Your task to perform on an android device: Search for macbook air on costco.com, select the first entry, add it to the cart, then select checkout. Image 0: 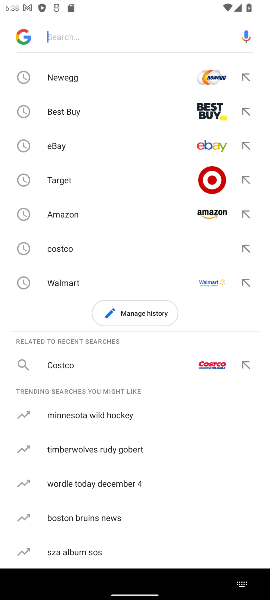
Step 0: click (61, 245)
Your task to perform on an android device: Search for macbook air on costco.com, select the first entry, add it to the cart, then select checkout. Image 1: 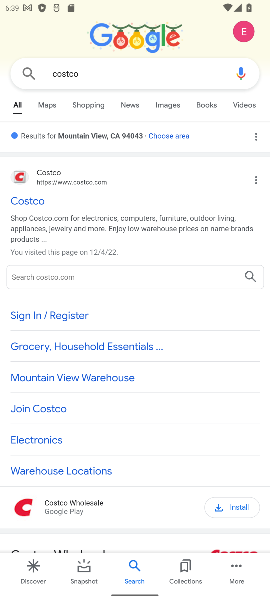
Step 1: click (27, 199)
Your task to perform on an android device: Search for macbook air on costco.com, select the first entry, add it to the cart, then select checkout. Image 2: 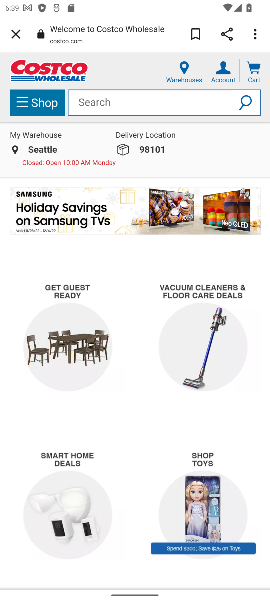
Step 2: click (154, 107)
Your task to perform on an android device: Search for macbook air on costco.com, select the first entry, add it to the cart, then select checkout. Image 3: 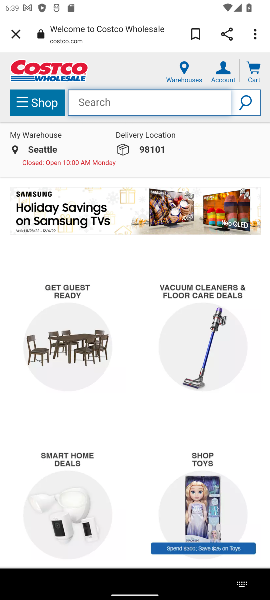
Step 3: type "macbook air"
Your task to perform on an android device: Search for macbook air on costco.com, select the first entry, add it to the cart, then select checkout. Image 4: 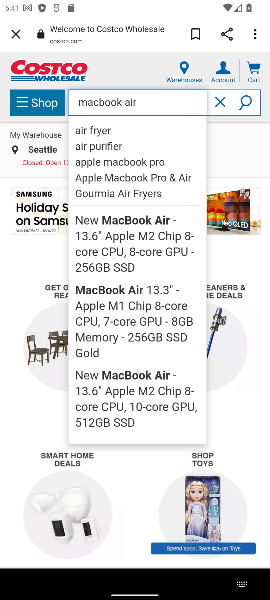
Step 4: click (241, 106)
Your task to perform on an android device: Search for macbook air on costco.com, select the first entry, add it to the cart, then select checkout. Image 5: 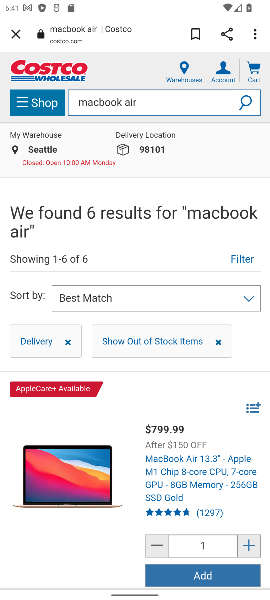
Step 5: click (197, 578)
Your task to perform on an android device: Search for macbook air on costco.com, select the first entry, add it to the cart, then select checkout. Image 6: 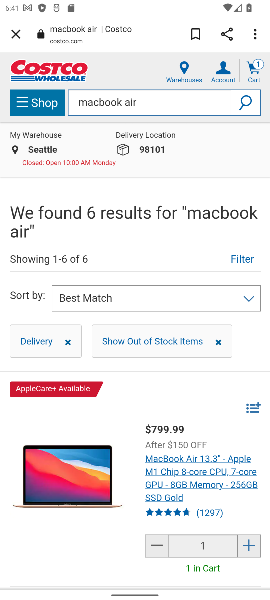
Step 6: click (256, 72)
Your task to perform on an android device: Search for macbook air on costco.com, select the first entry, add it to the cart, then select checkout. Image 7: 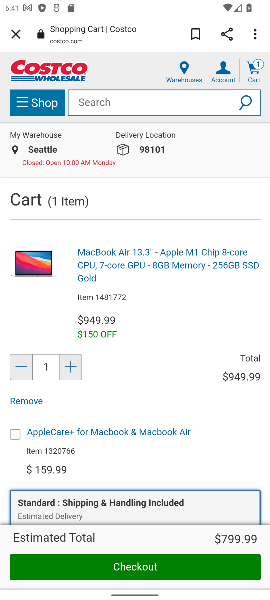
Step 7: click (153, 564)
Your task to perform on an android device: Search for macbook air on costco.com, select the first entry, add it to the cart, then select checkout. Image 8: 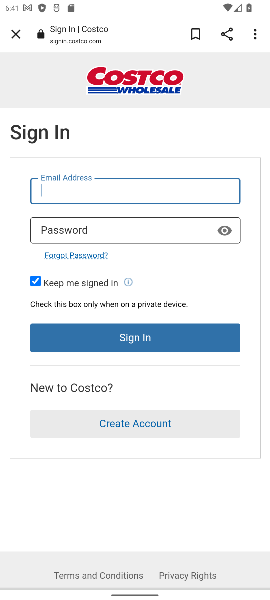
Step 8: task complete